Your task to perform on an android device: uninstall "Spotify: Music and Podcasts" Image 0: 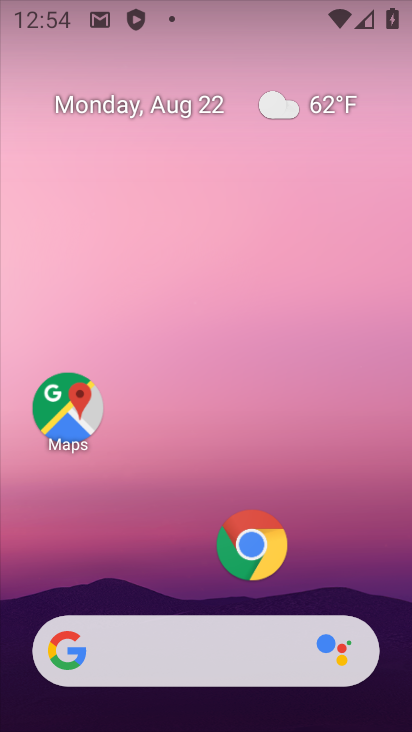
Step 0: drag from (163, 582) to (255, 60)
Your task to perform on an android device: uninstall "Spotify: Music and Podcasts" Image 1: 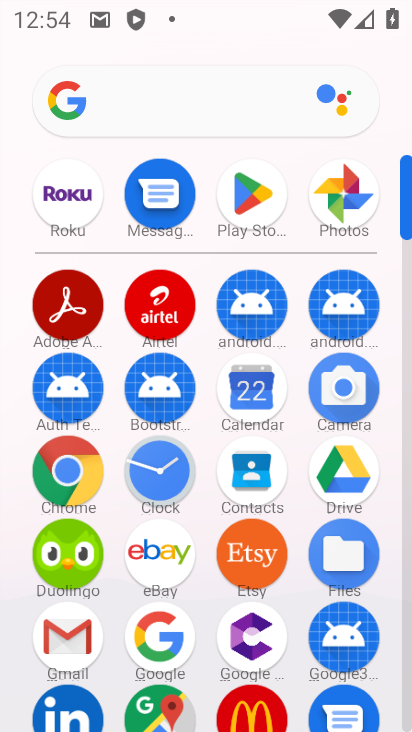
Step 1: click (255, 192)
Your task to perform on an android device: uninstall "Spotify: Music and Podcasts" Image 2: 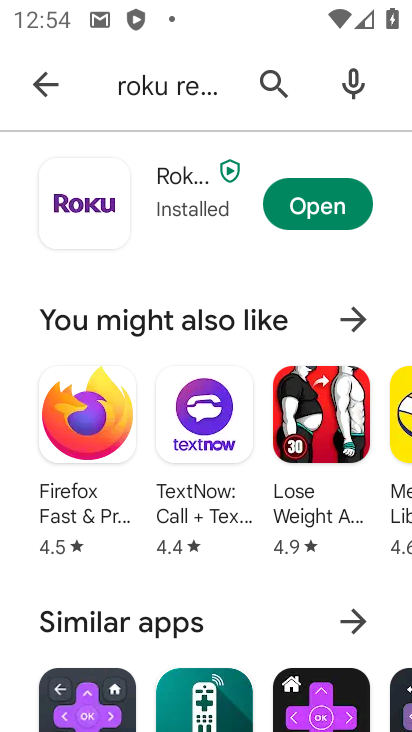
Step 2: click (259, 64)
Your task to perform on an android device: uninstall "Spotify: Music and Podcasts" Image 3: 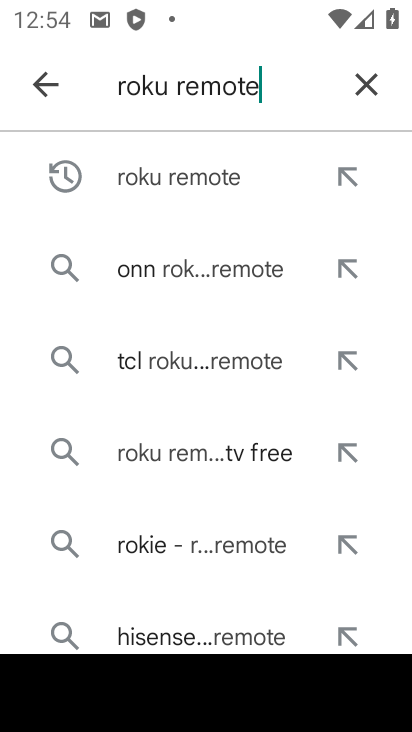
Step 3: click (363, 85)
Your task to perform on an android device: uninstall "Spotify: Music and Podcasts" Image 4: 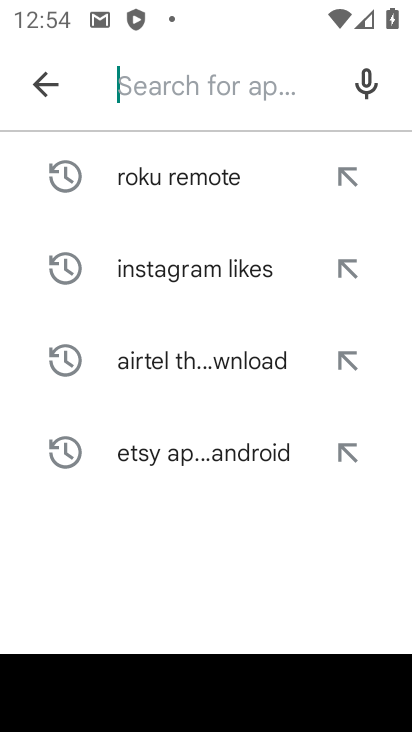
Step 4: click (156, 96)
Your task to perform on an android device: uninstall "Spotify: Music and Podcasts" Image 5: 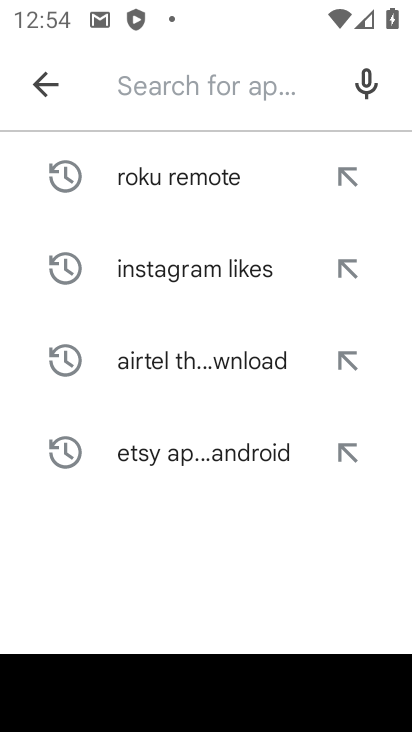
Step 5: type "Spotify"
Your task to perform on an android device: uninstall "Spotify: Music and Podcasts" Image 6: 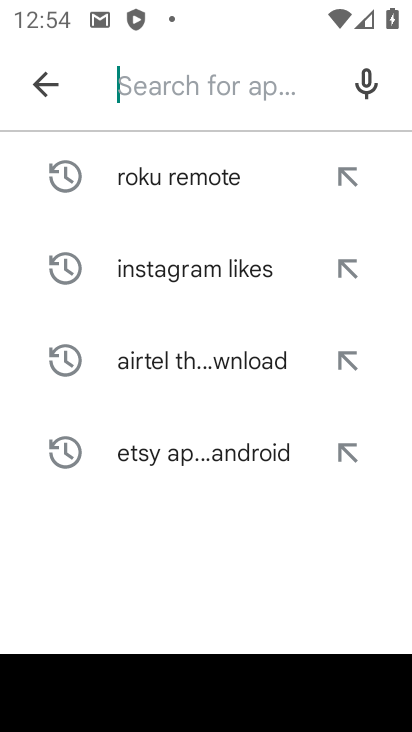
Step 6: click (149, 584)
Your task to perform on an android device: uninstall "Spotify: Music and Podcasts" Image 7: 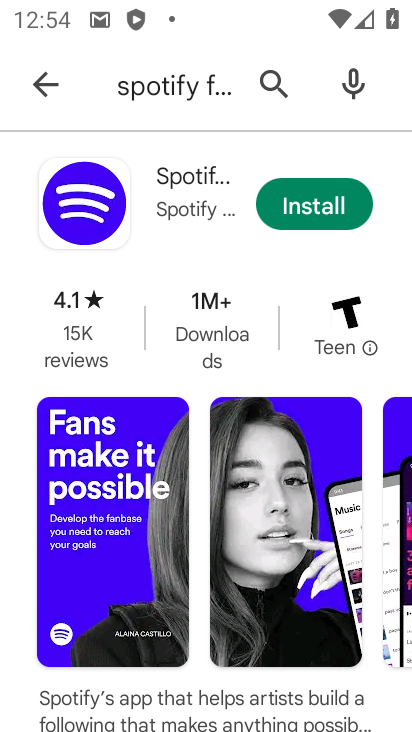
Step 7: task complete